Your task to perform on an android device: What does the iPhone 8 look like? Image 0: 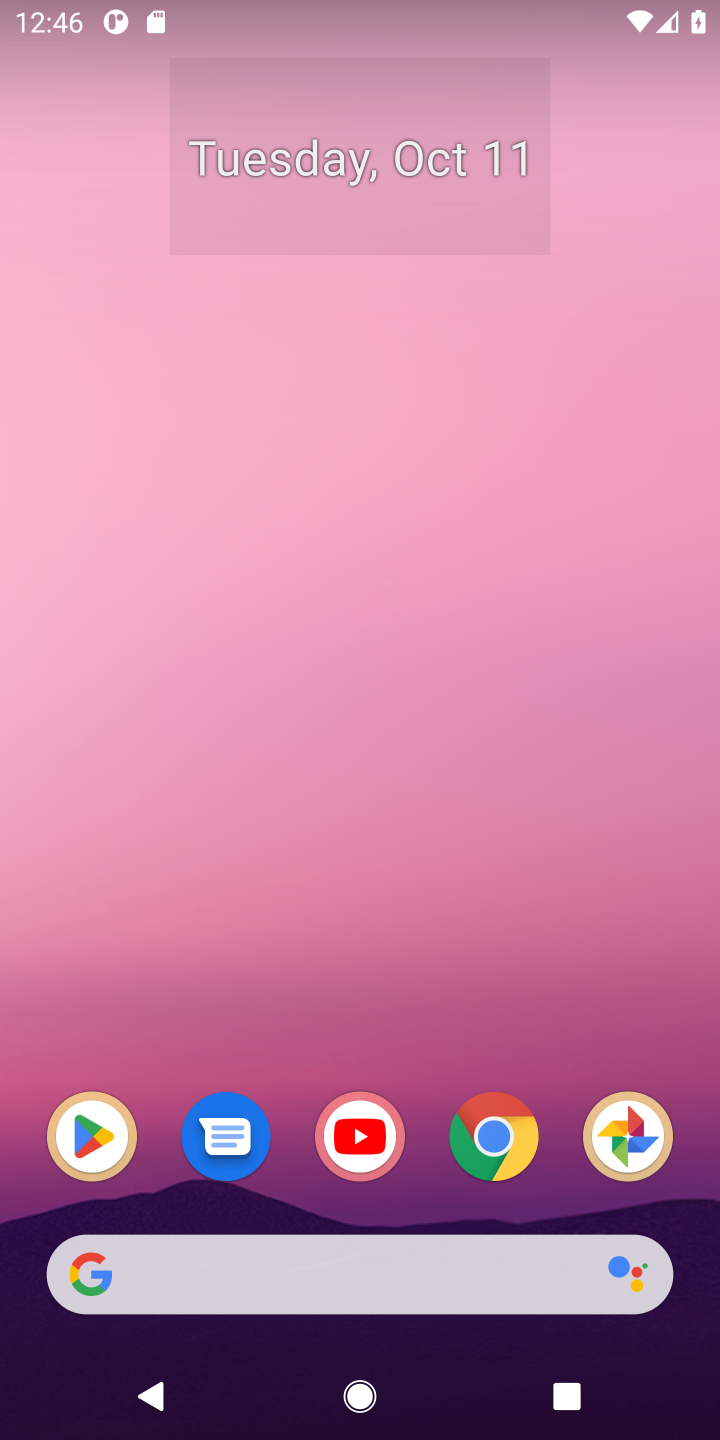
Step 0: press home button
Your task to perform on an android device: What does the iPhone 8 look like? Image 1: 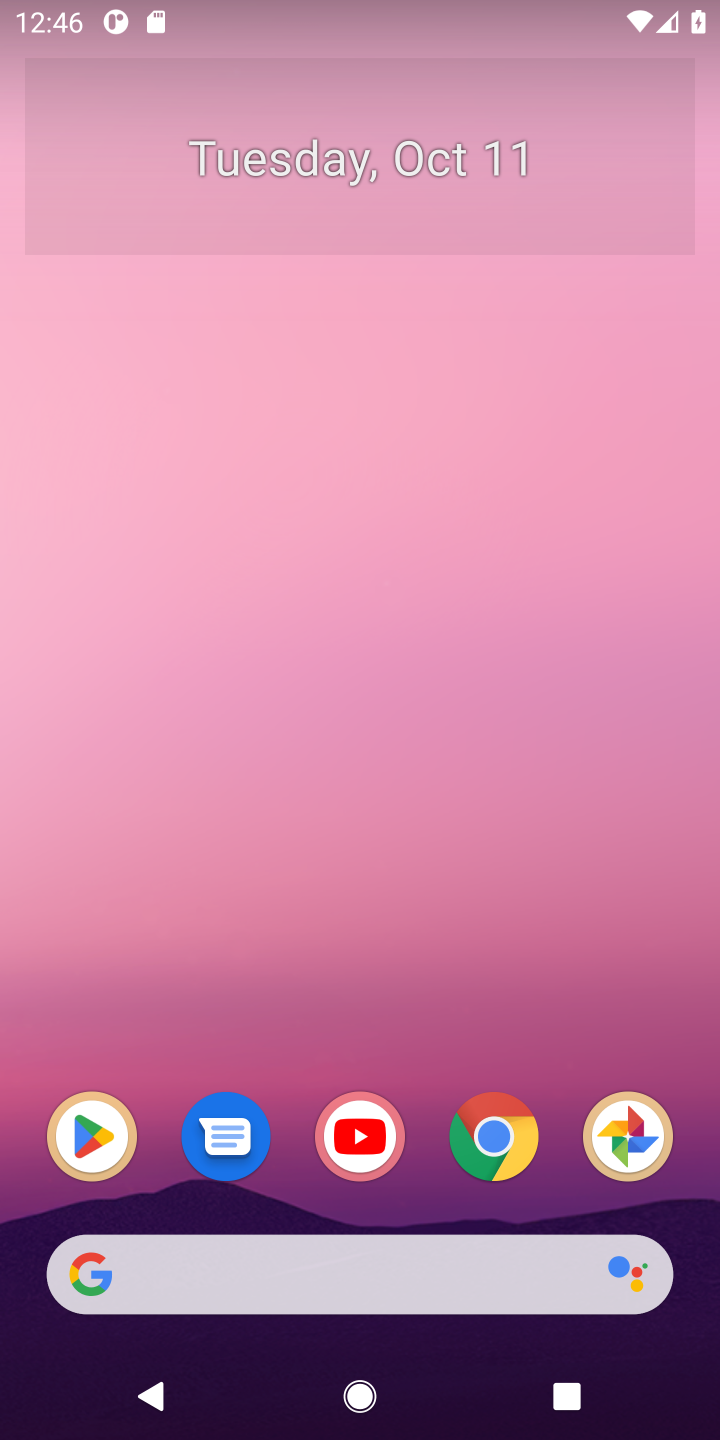
Step 1: click (432, 1274)
Your task to perform on an android device: What does the iPhone 8 look like? Image 2: 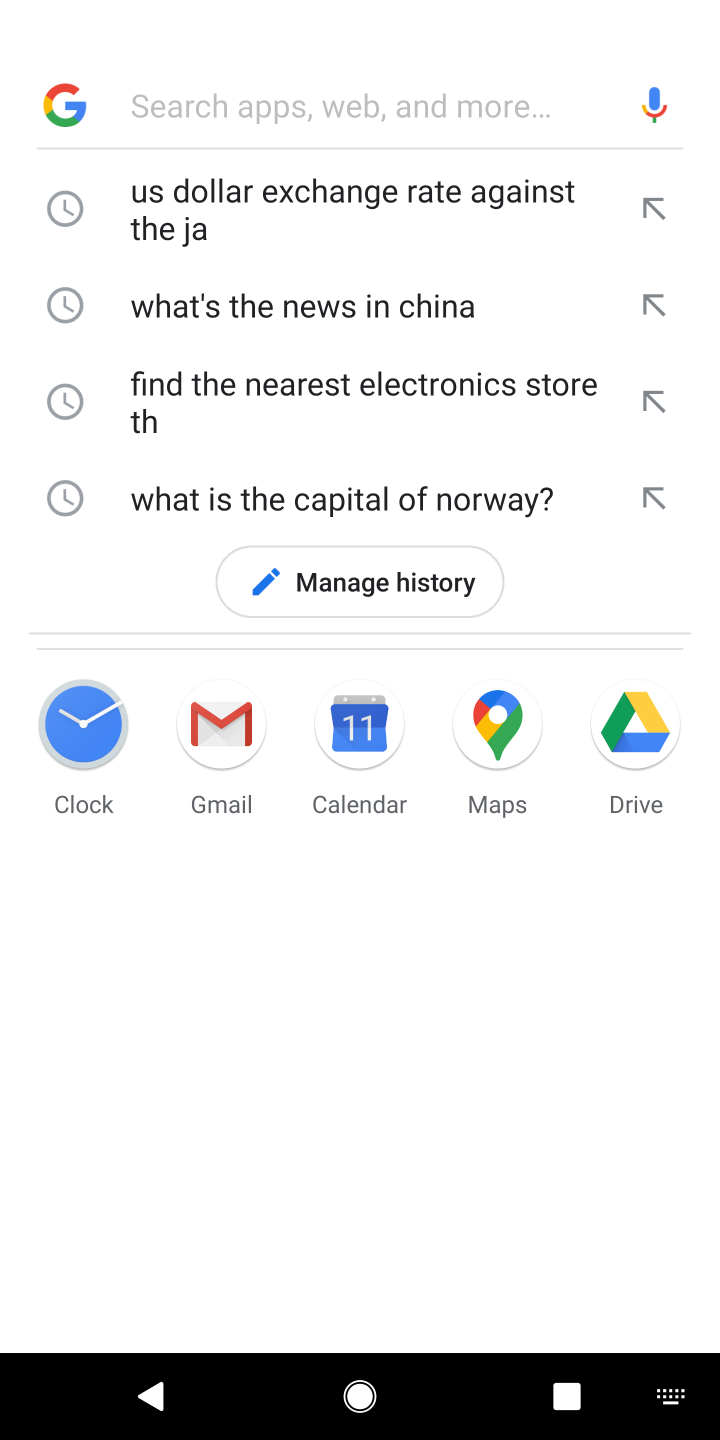
Step 2: press enter
Your task to perform on an android device: What does the iPhone 8 look like? Image 3: 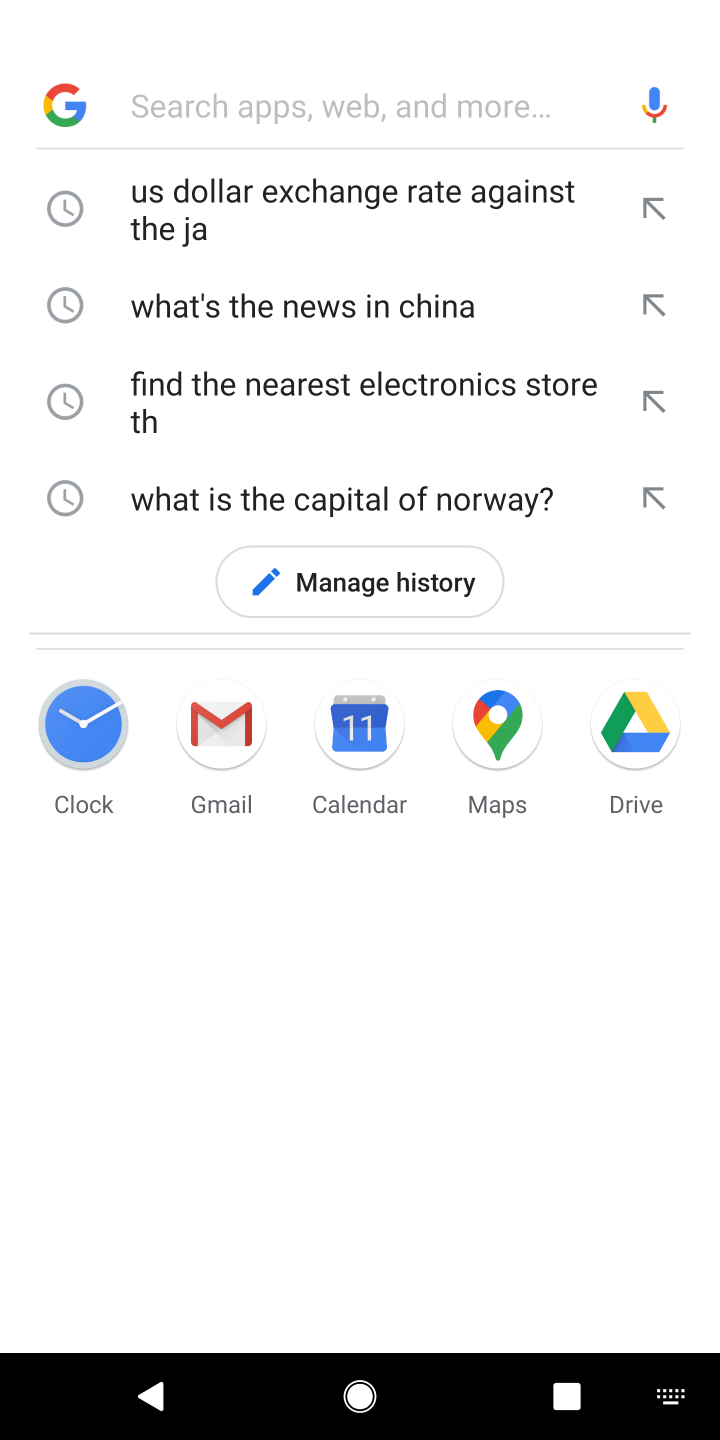
Step 3: type "What does the iPhone 8 look like"
Your task to perform on an android device: What does the iPhone 8 look like? Image 4: 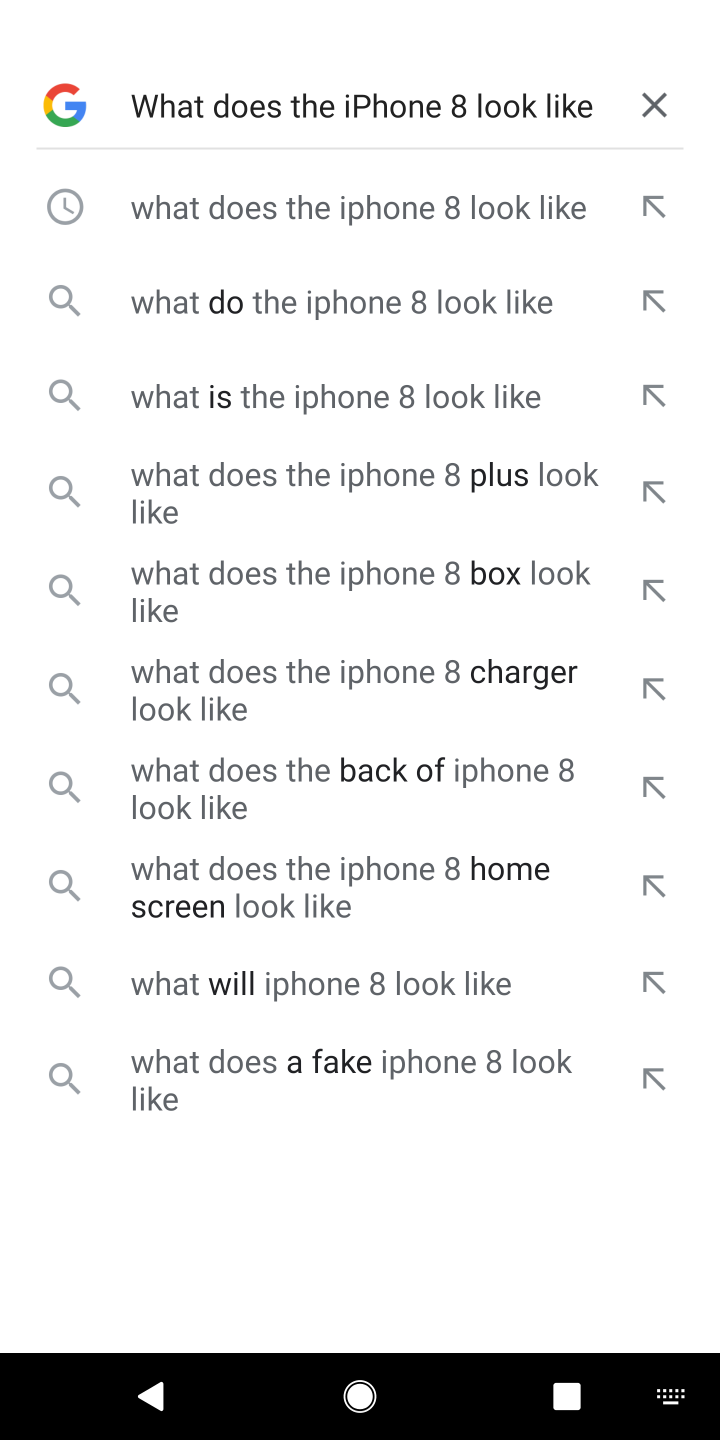
Step 4: press enter
Your task to perform on an android device: What does the iPhone 8 look like? Image 5: 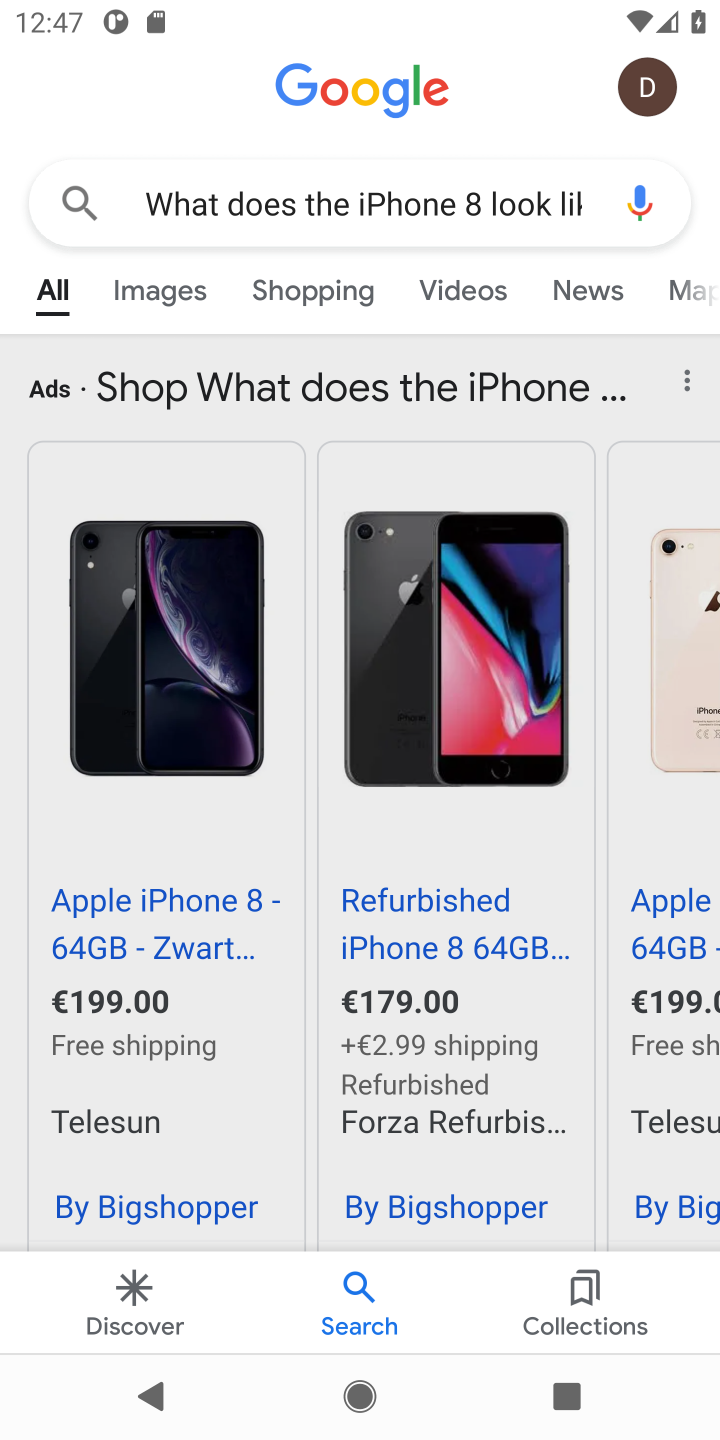
Step 5: task complete